Your task to perform on an android device: What's the weather today? Image 0: 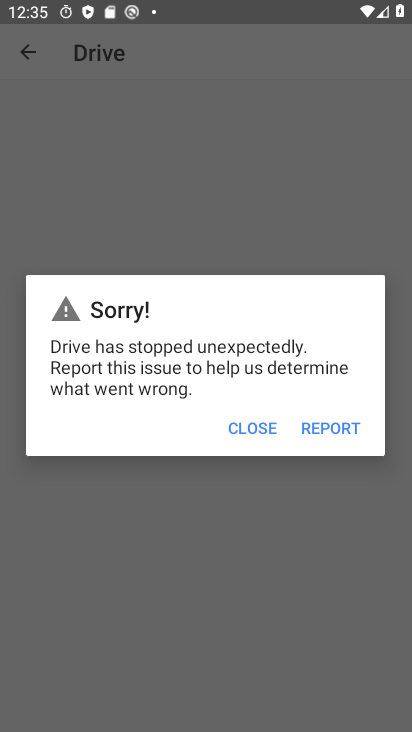
Step 0: press back button
Your task to perform on an android device: What's the weather today? Image 1: 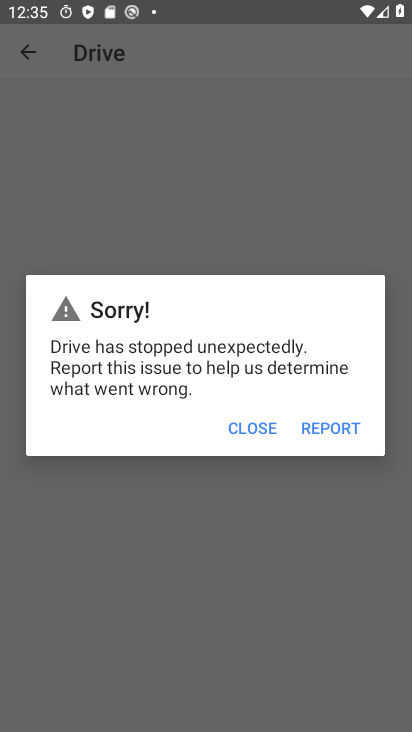
Step 1: press back button
Your task to perform on an android device: What's the weather today? Image 2: 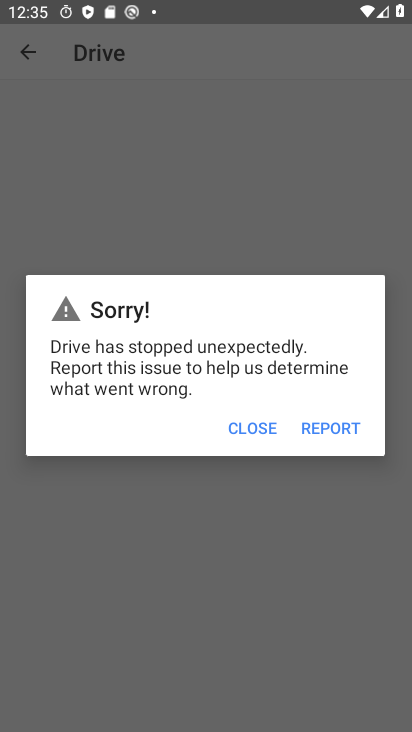
Step 2: press home button
Your task to perform on an android device: What's the weather today? Image 3: 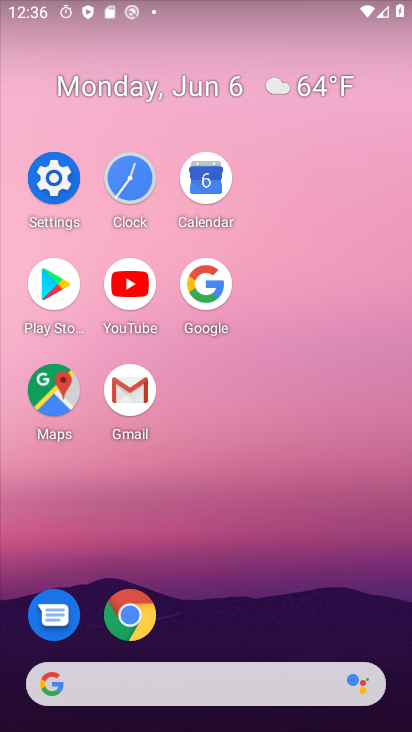
Step 3: click (218, 281)
Your task to perform on an android device: What's the weather today? Image 4: 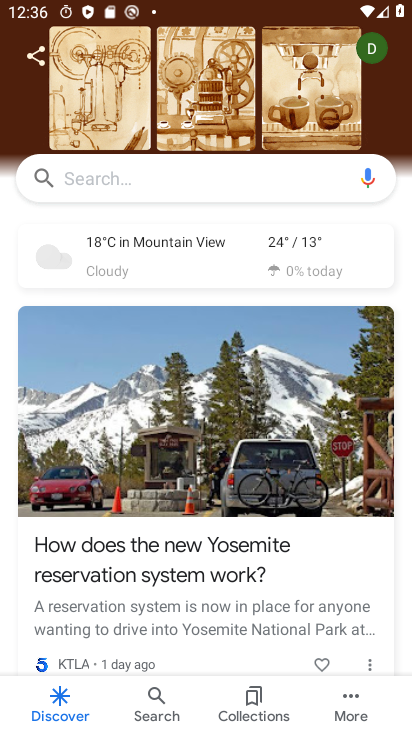
Step 4: click (183, 263)
Your task to perform on an android device: What's the weather today? Image 5: 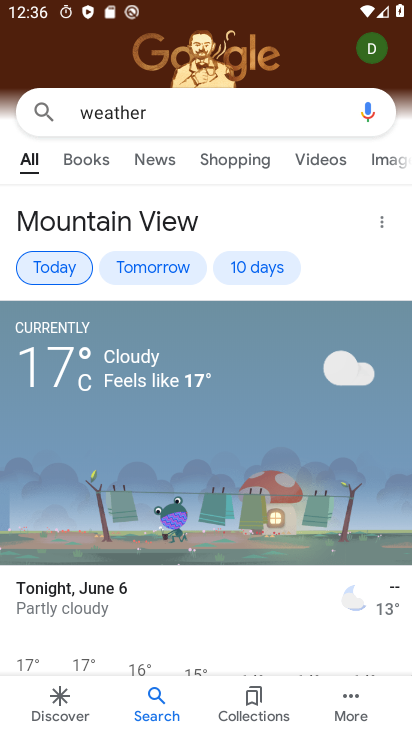
Step 5: task complete